Your task to perform on an android device: toggle improve location accuracy Image 0: 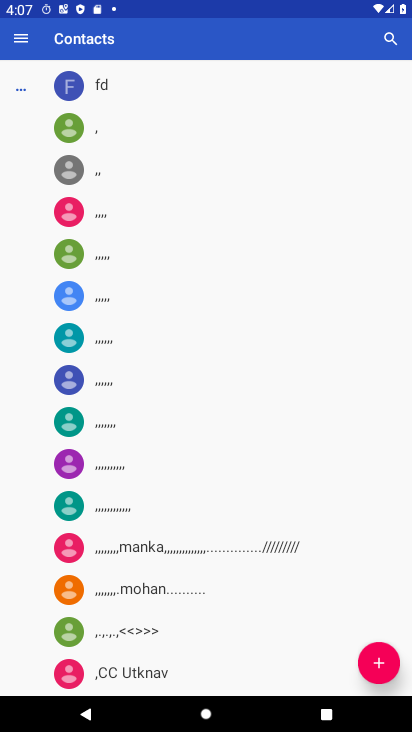
Step 0: press home button
Your task to perform on an android device: toggle improve location accuracy Image 1: 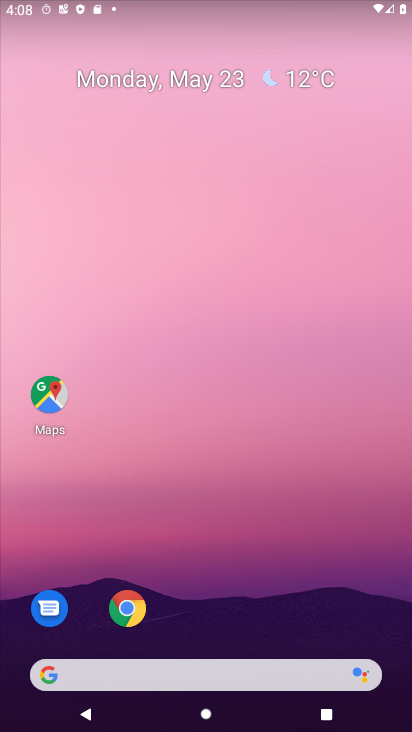
Step 1: drag from (282, 254) to (172, 13)
Your task to perform on an android device: toggle improve location accuracy Image 2: 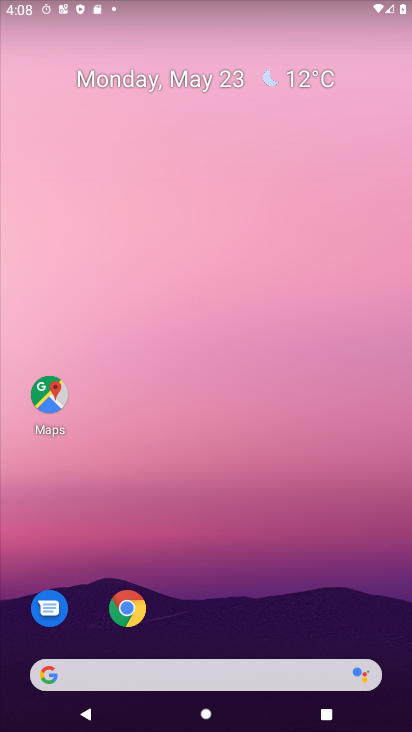
Step 2: drag from (238, 615) to (162, 50)
Your task to perform on an android device: toggle improve location accuracy Image 3: 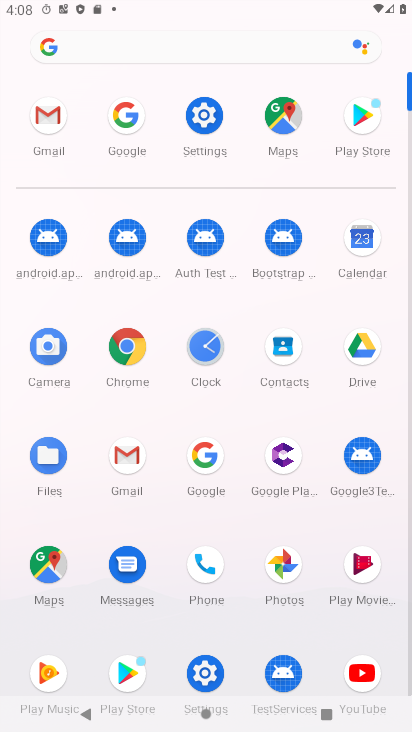
Step 3: click (192, 174)
Your task to perform on an android device: toggle improve location accuracy Image 4: 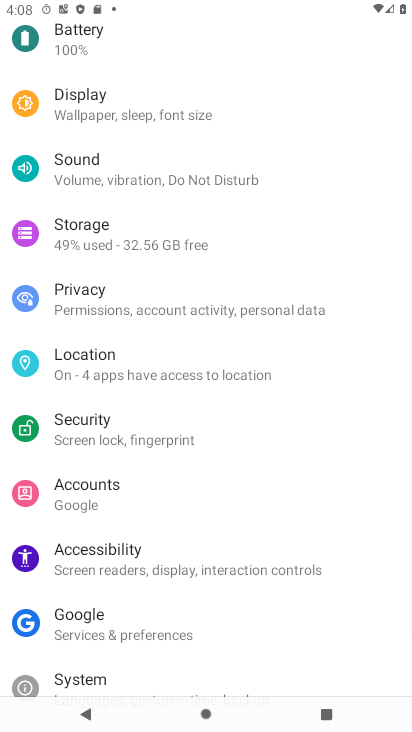
Step 4: click (164, 361)
Your task to perform on an android device: toggle improve location accuracy Image 5: 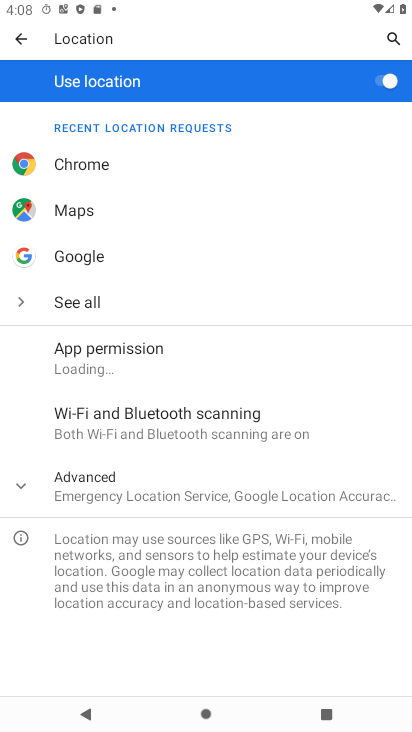
Step 5: click (221, 477)
Your task to perform on an android device: toggle improve location accuracy Image 6: 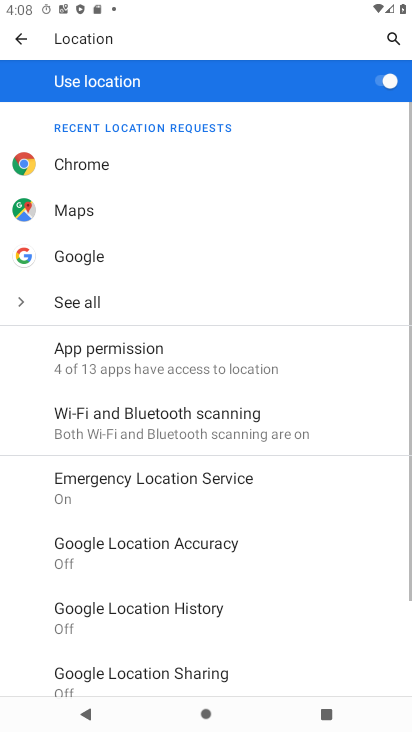
Step 6: click (245, 539)
Your task to perform on an android device: toggle improve location accuracy Image 7: 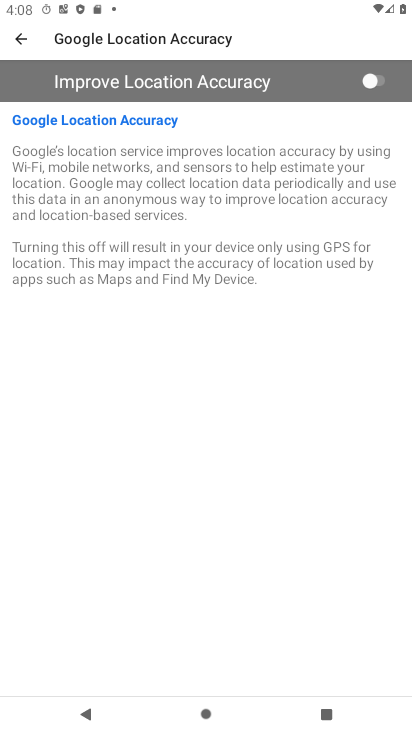
Step 7: click (361, 81)
Your task to perform on an android device: toggle improve location accuracy Image 8: 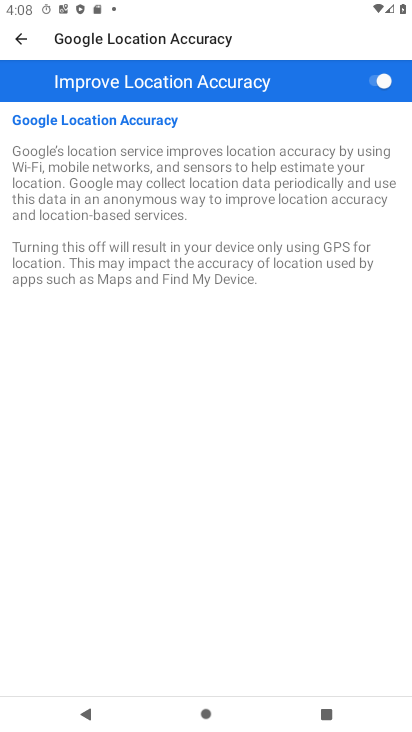
Step 8: task complete